Your task to perform on an android device: Set the phone to "Do not disturb". Image 0: 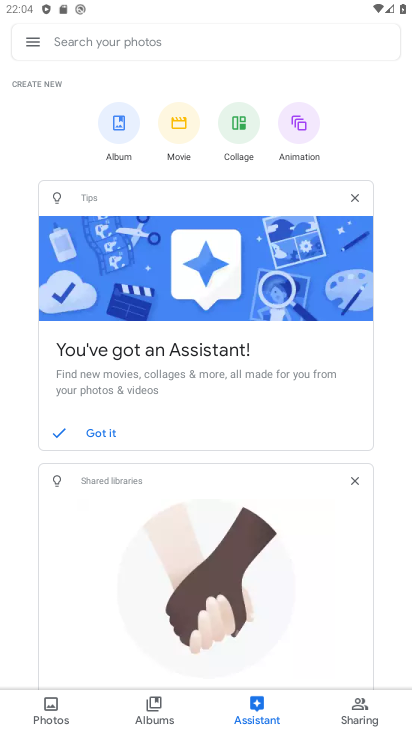
Step 0: press home button
Your task to perform on an android device: Set the phone to "Do not disturb". Image 1: 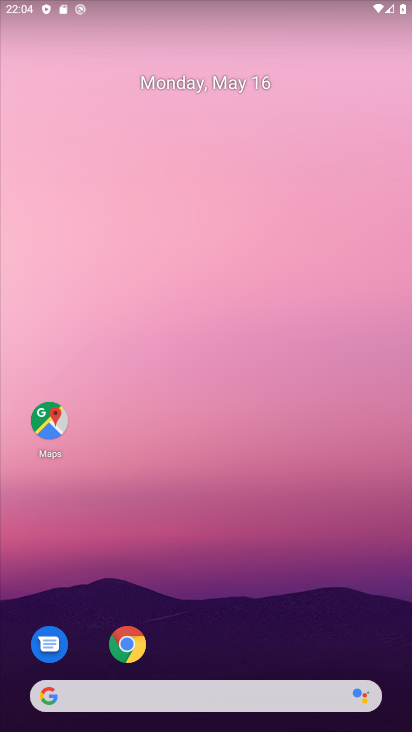
Step 1: drag from (232, 7) to (197, 305)
Your task to perform on an android device: Set the phone to "Do not disturb". Image 2: 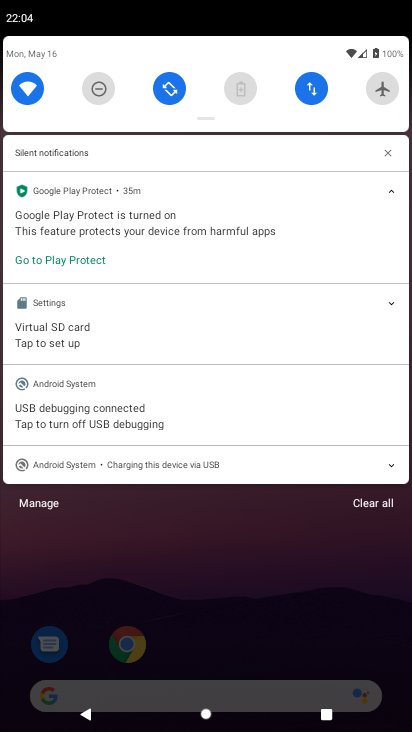
Step 2: click (104, 92)
Your task to perform on an android device: Set the phone to "Do not disturb". Image 3: 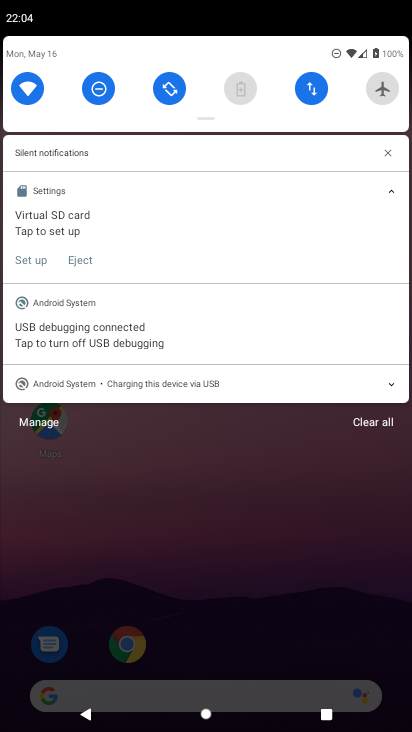
Step 3: task complete